Your task to perform on an android device: toggle javascript in the chrome app Image 0: 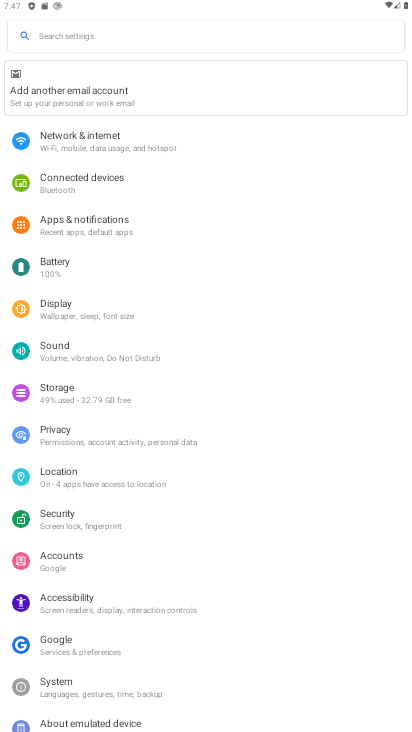
Step 0: press home button
Your task to perform on an android device: toggle javascript in the chrome app Image 1: 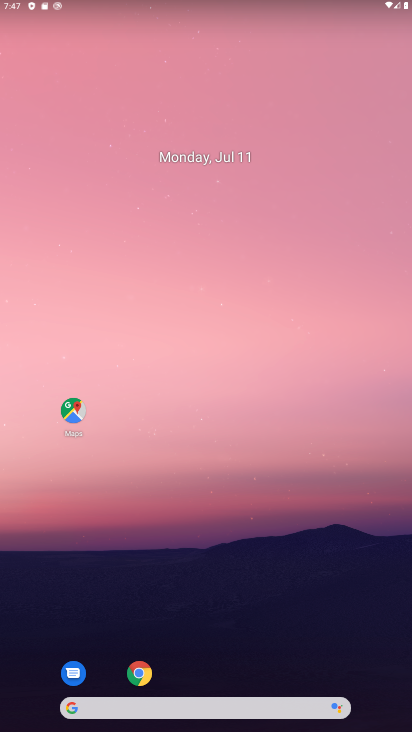
Step 1: click (136, 667)
Your task to perform on an android device: toggle javascript in the chrome app Image 2: 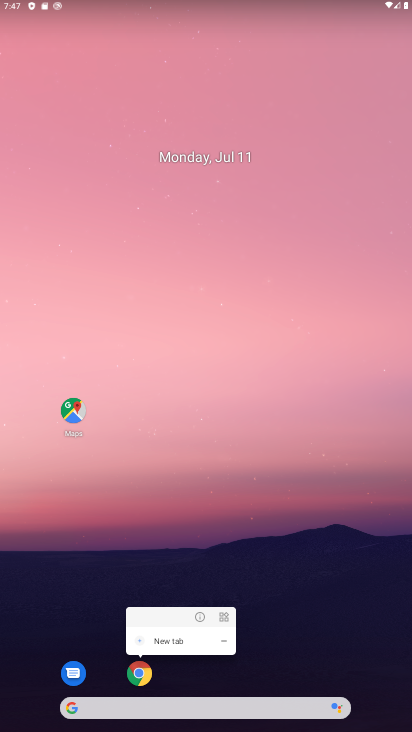
Step 2: click (139, 673)
Your task to perform on an android device: toggle javascript in the chrome app Image 3: 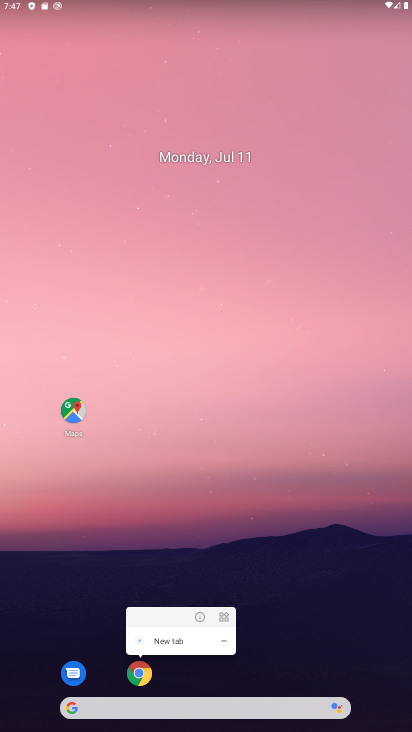
Step 3: click (139, 673)
Your task to perform on an android device: toggle javascript in the chrome app Image 4: 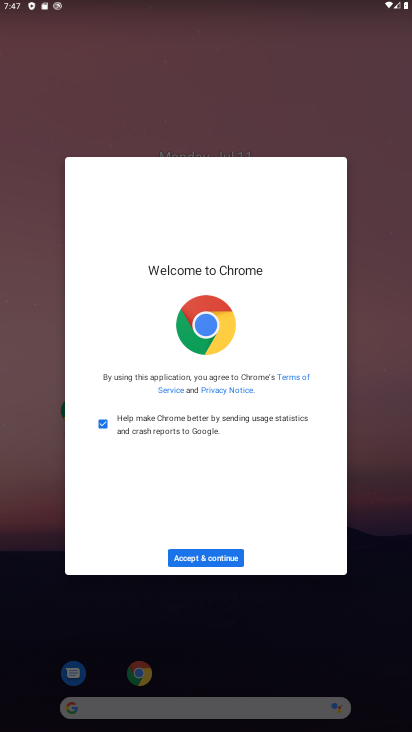
Step 4: click (206, 560)
Your task to perform on an android device: toggle javascript in the chrome app Image 5: 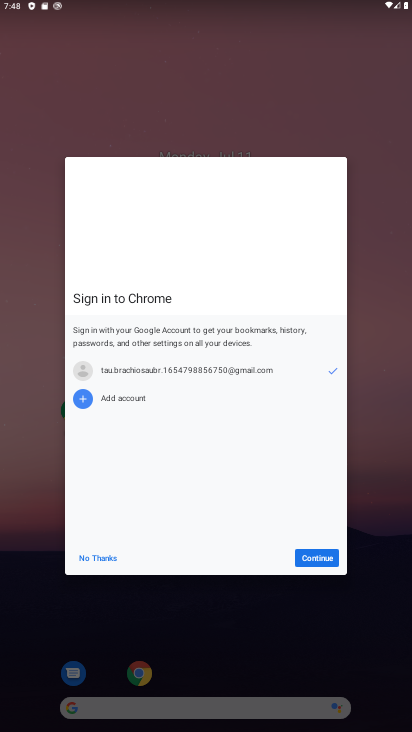
Step 5: click (323, 553)
Your task to perform on an android device: toggle javascript in the chrome app Image 6: 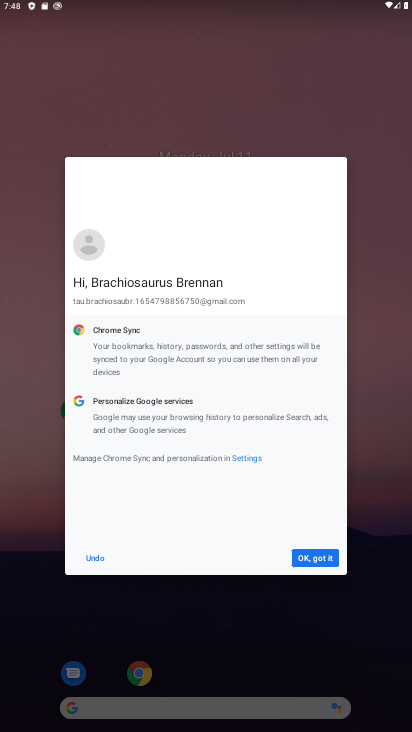
Step 6: click (317, 559)
Your task to perform on an android device: toggle javascript in the chrome app Image 7: 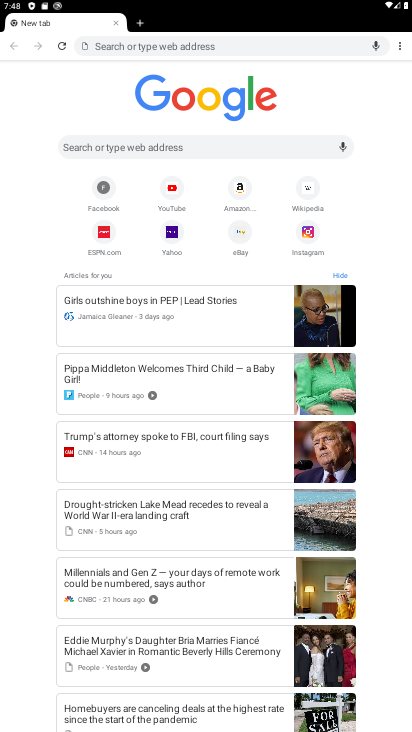
Step 7: click (400, 47)
Your task to perform on an android device: toggle javascript in the chrome app Image 8: 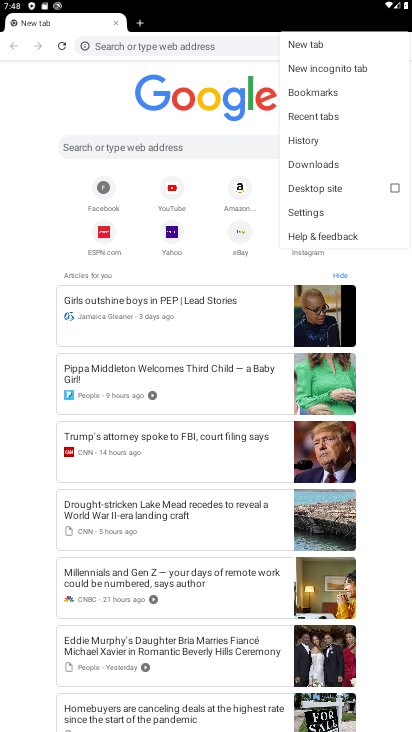
Step 8: click (327, 213)
Your task to perform on an android device: toggle javascript in the chrome app Image 9: 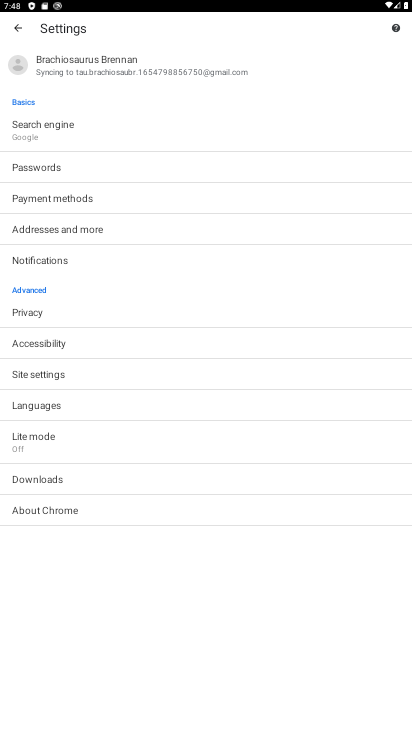
Step 9: click (75, 371)
Your task to perform on an android device: toggle javascript in the chrome app Image 10: 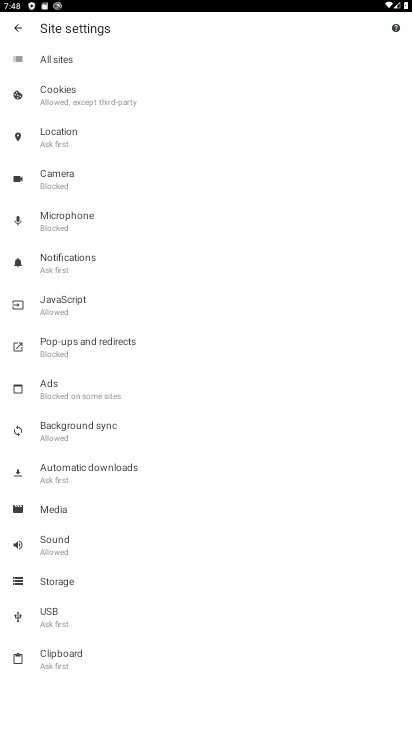
Step 10: click (98, 302)
Your task to perform on an android device: toggle javascript in the chrome app Image 11: 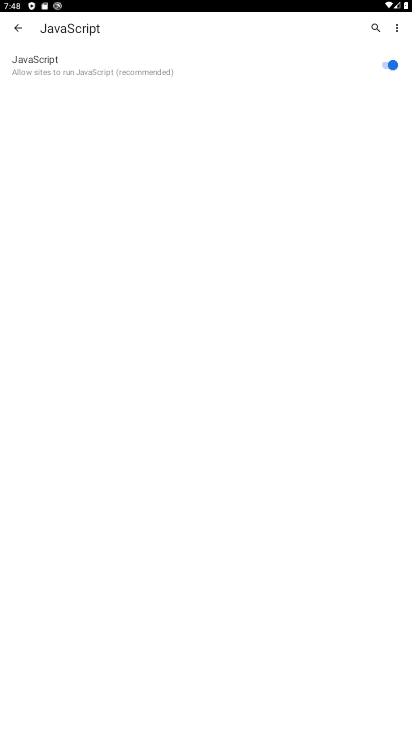
Step 11: click (382, 62)
Your task to perform on an android device: toggle javascript in the chrome app Image 12: 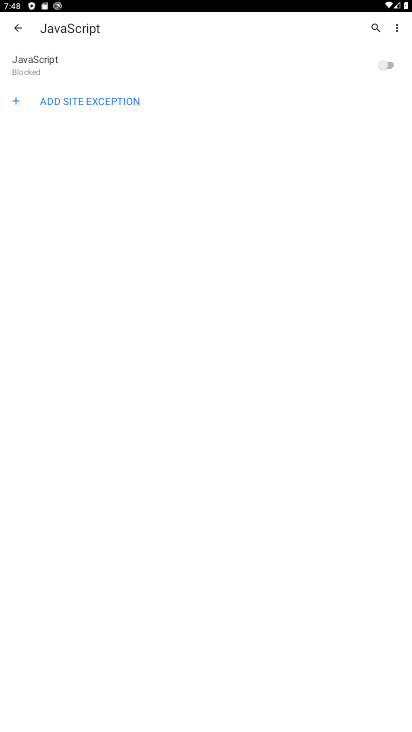
Step 12: task complete